Your task to perform on an android device: Open the Play Movies app and select the watchlist tab. Image 0: 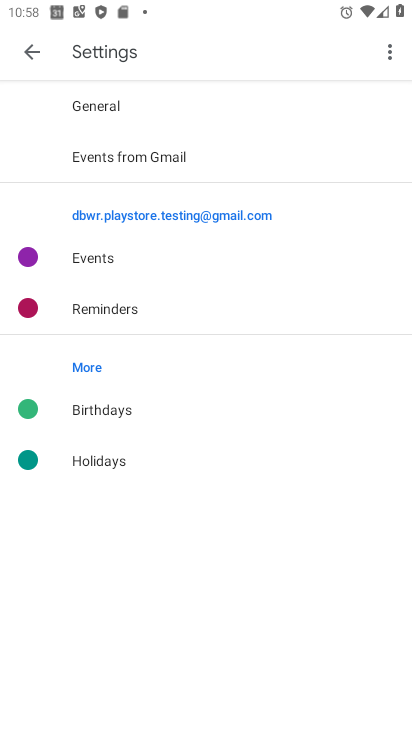
Step 0: press home button
Your task to perform on an android device: Open the Play Movies app and select the watchlist tab. Image 1: 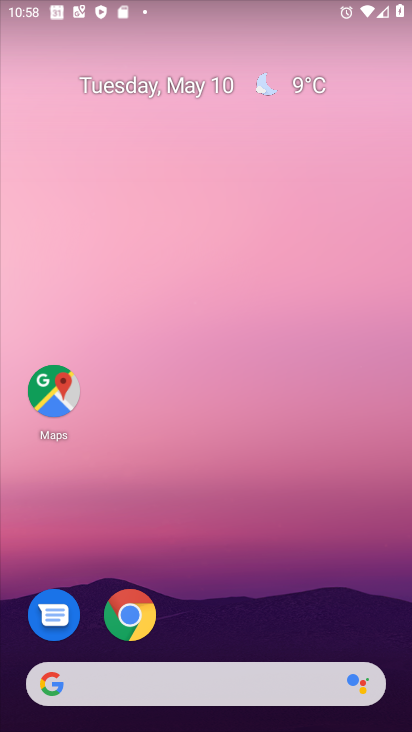
Step 1: drag from (216, 634) to (332, 58)
Your task to perform on an android device: Open the Play Movies app and select the watchlist tab. Image 2: 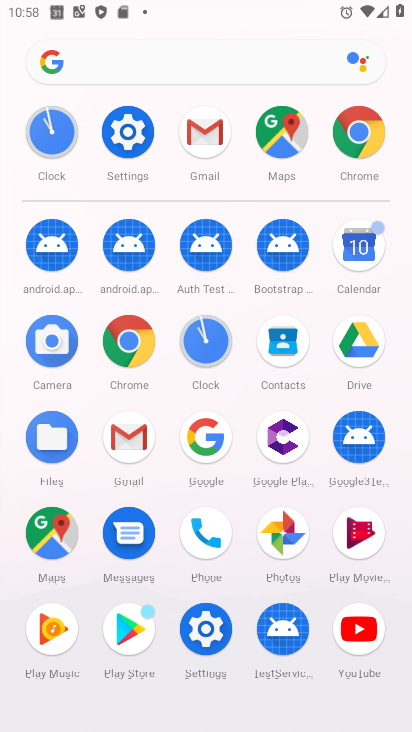
Step 2: click (354, 539)
Your task to perform on an android device: Open the Play Movies app and select the watchlist tab. Image 3: 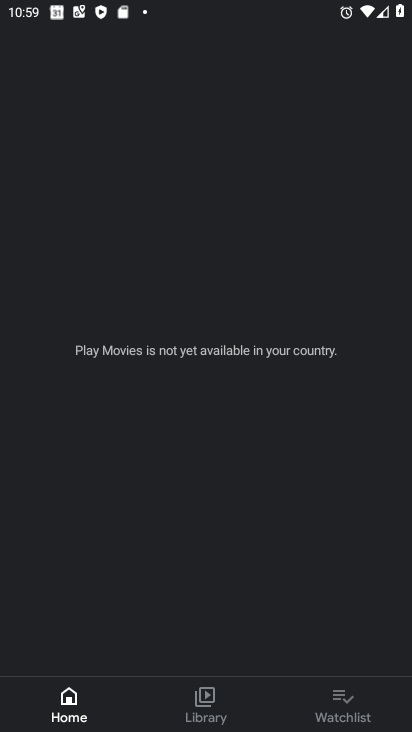
Step 3: click (331, 702)
Your task to perform on an android device: Open the Play Movies app and select the watchlist tab. Image 4: 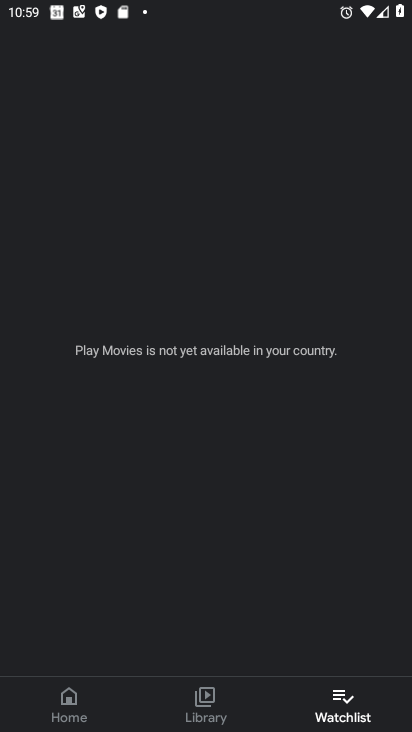
Step 4: task complete